Your task to perform on an android device: clear history in the chrome app Image 0: 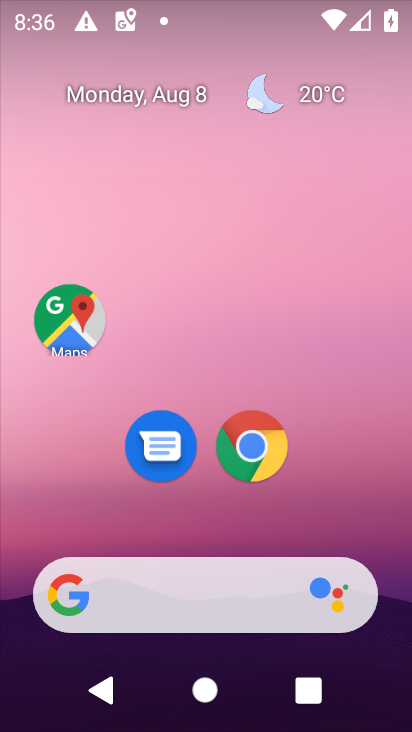
Step 0: click (260, 450)
Your task to perform on an android device: clear history in the chrome app Image 1: 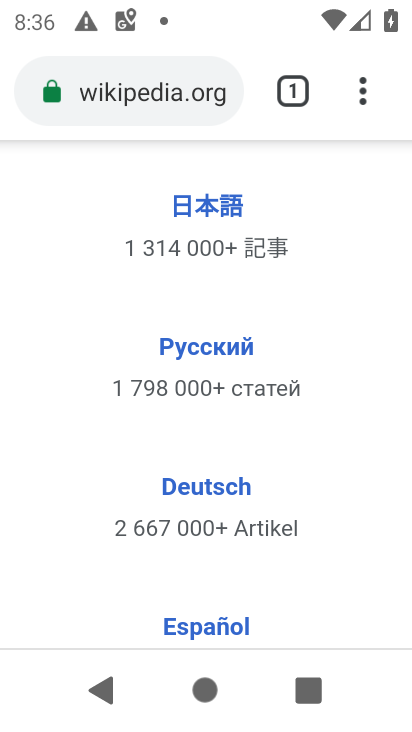
Step 1: click (362, 107)
Your task to perform on an android device: clear history in the chrome app Image 2: 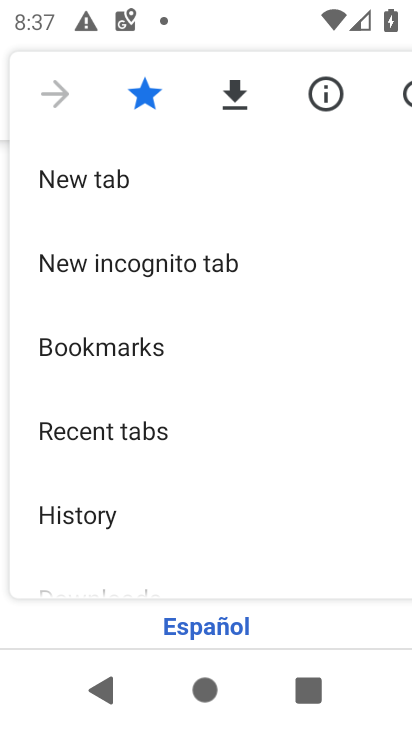
Step 2: click (90, 510)
Your task to perform on an android device: clear history in the chrome app Image 3: 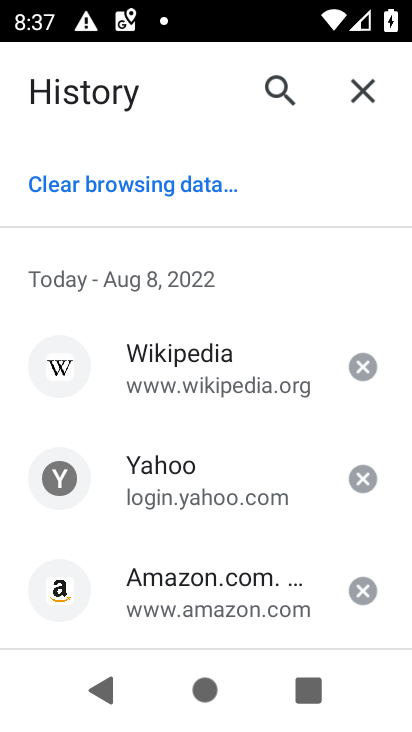
Step 3: click (127, 189)
Your task to perform on an android device: clear history in the chrome app Image 4: 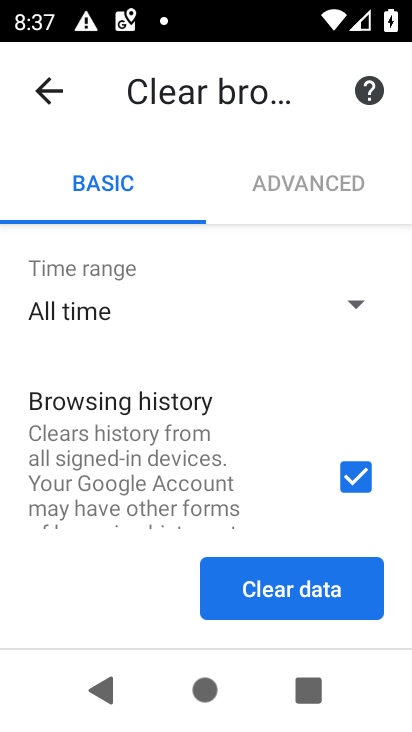
Step 4: click (280, 599)
Your task to perform on an android device: clear history in the chrome app Image 5: 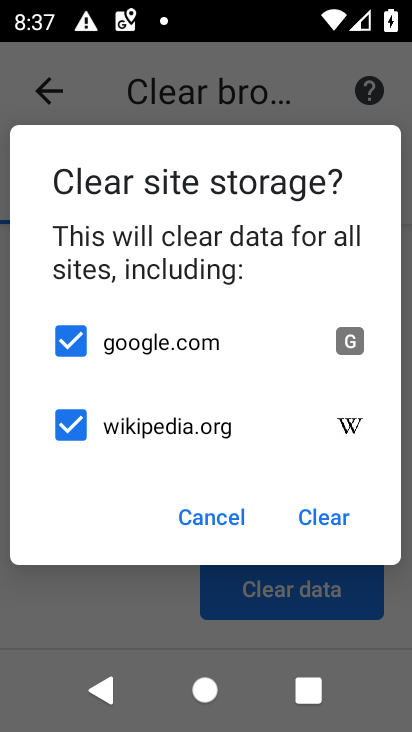
Step 5: click (316, 519)
Your task to perform on an android device: clear history in the chrome app Image 6: 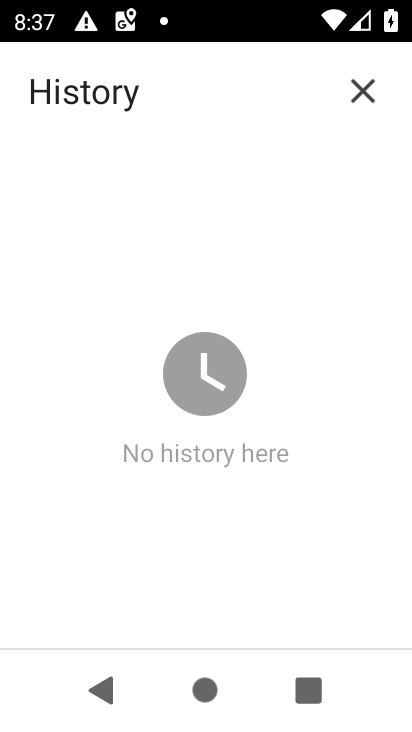
Step 6: task complete